Your task to perform on an android device: turn off sleep mode Image 0: 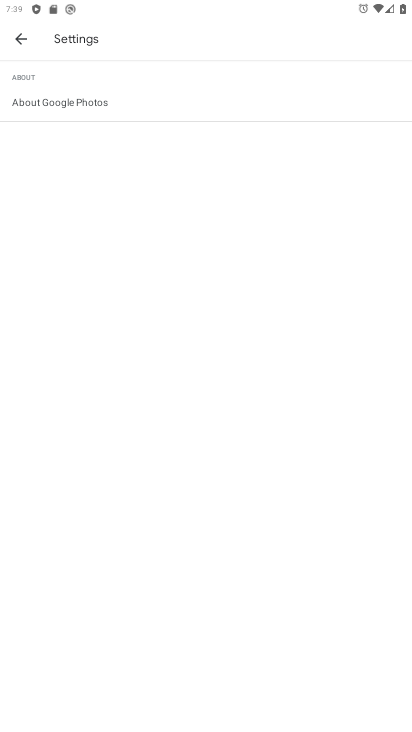
Step 0: press home button
Your task to perform on an android device: turn off sleep mode Image 1: 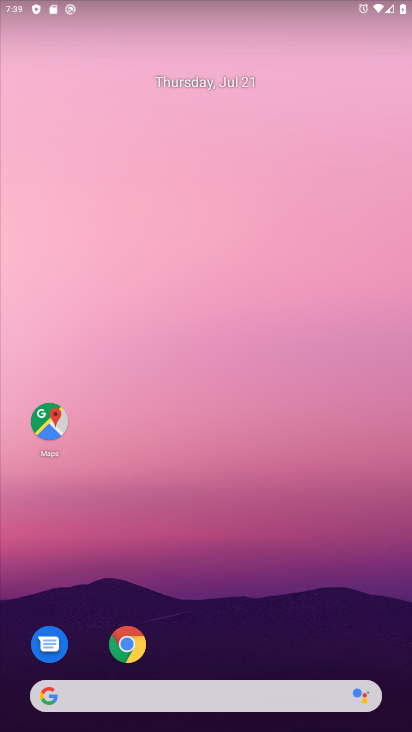
Step 1: drag from (343, 581) to (369, 87)
Your task to perform on an android device: turn off sleep mode Image 2: 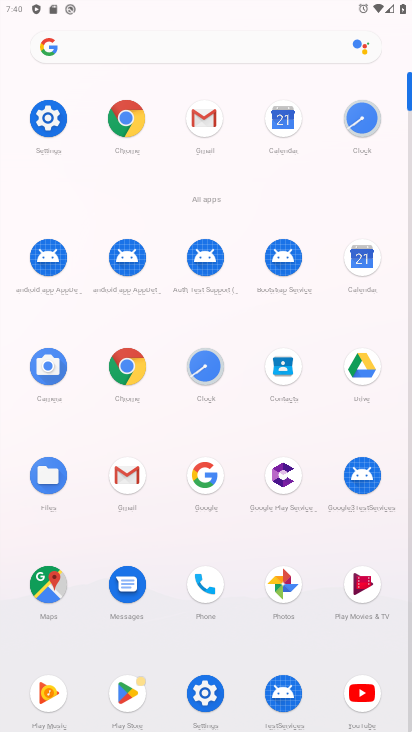
Step 2: click (54, 121)
Your task to perform on an android device: turn off sleep mode Image 3: 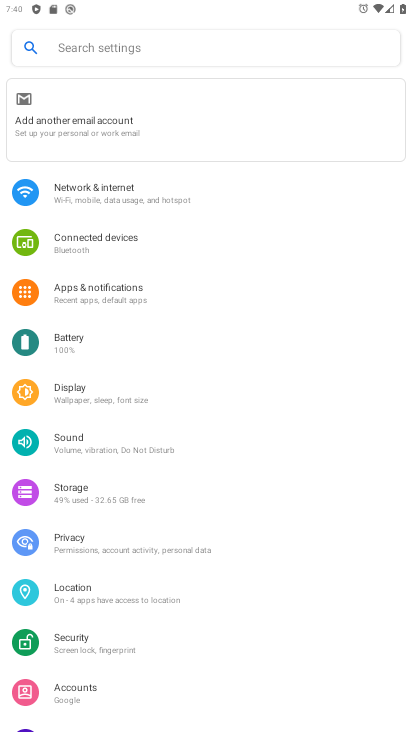
Step 3: drag from (245, 221) to (284, 357)
Your task to perform on an android device: turn off sleep mode Image 4: 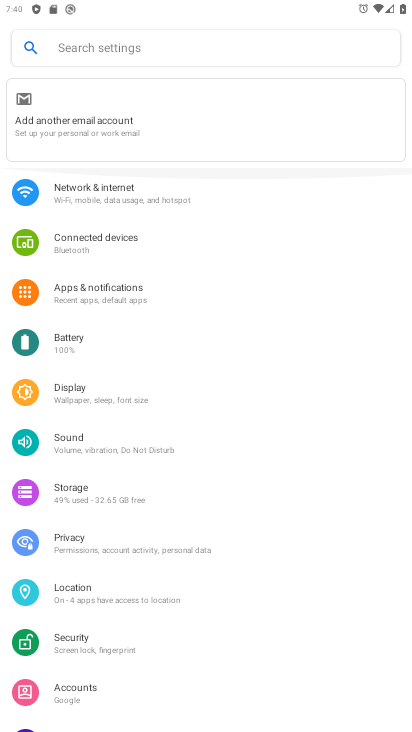
Step 4: drag from (279, 390) to (290, 301)
Your task to perform on an android device: turn off sleep mode Image 5: 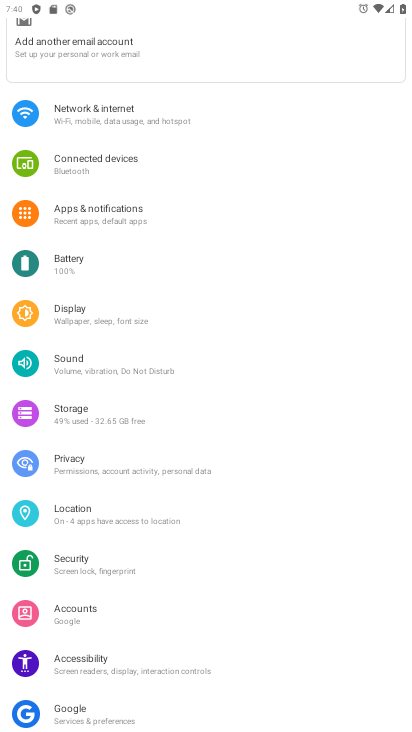
Step 5: drag from (304, 399) to (314, 288)
Your task to perform on an android device: turn off sleep mode Image 6: 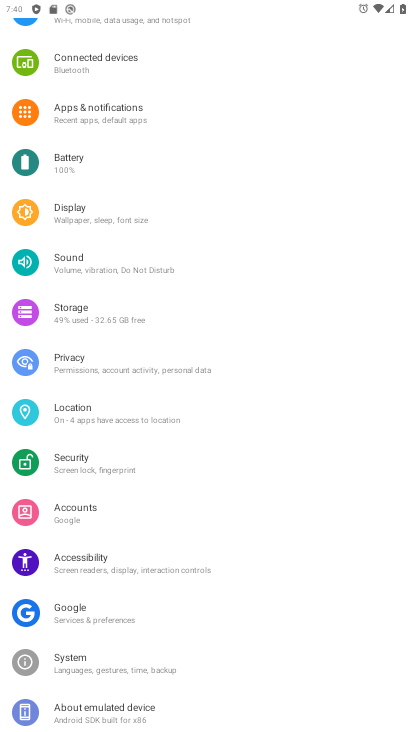
Step 6: click (153, 220)
Your task to perform on an android device: turn off sleep mode Image 7: 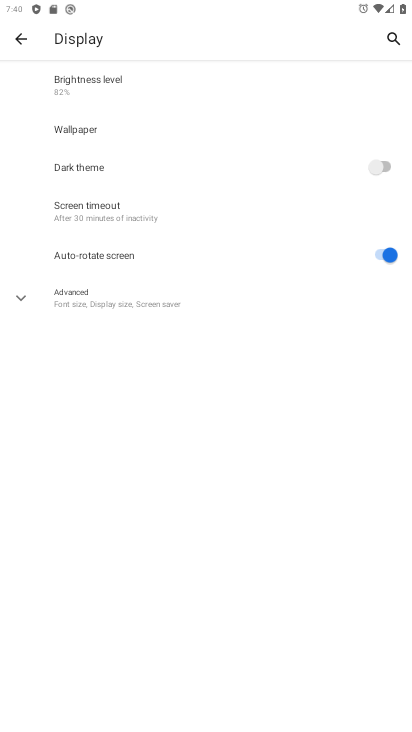
Step 7: click (151, 302)
Your task to perform on an android device: turn off sleep mode Image 8: 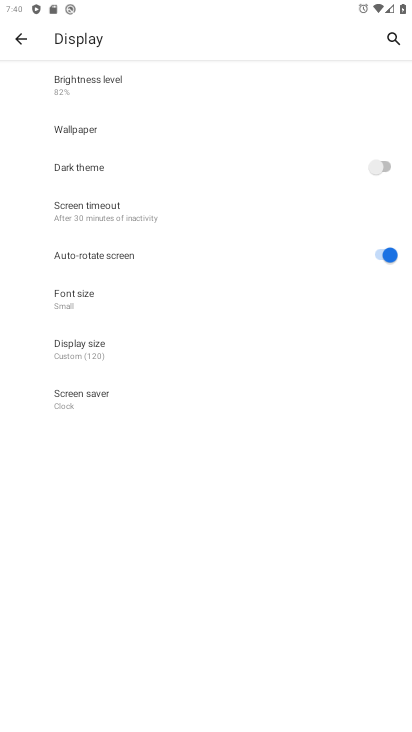
Step 8: task complete